Your task to perform on an android device: find photos in the google photos app Image 0: 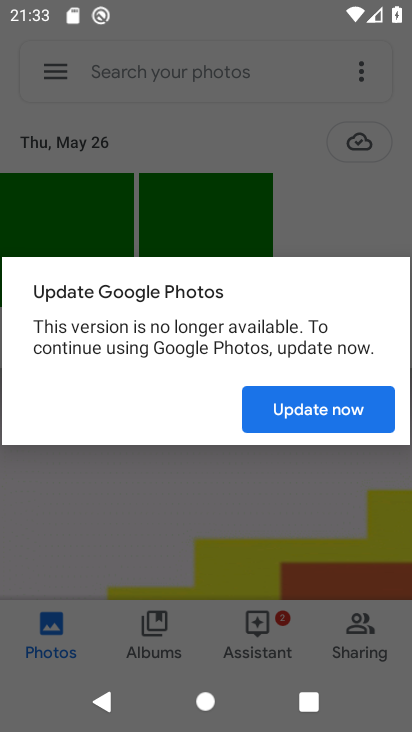
Step 0: press home button
Your task to perform on an android device: find photos in the google photos app Image 1: 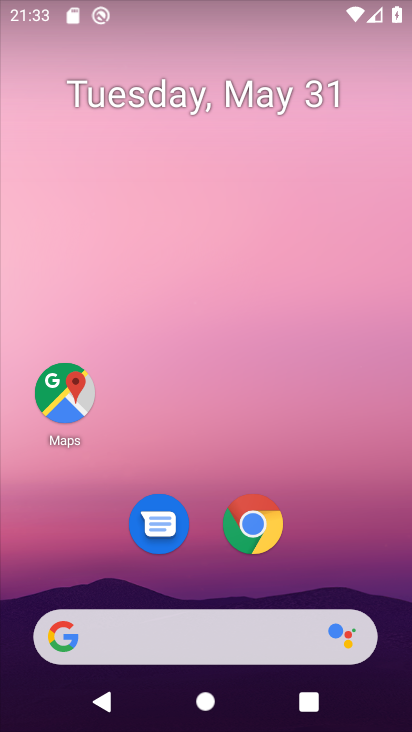
Step 1: drag from (349, 514) to (305, 4)
Your task to perform on an android device: find photos in the google photos app Image 2: 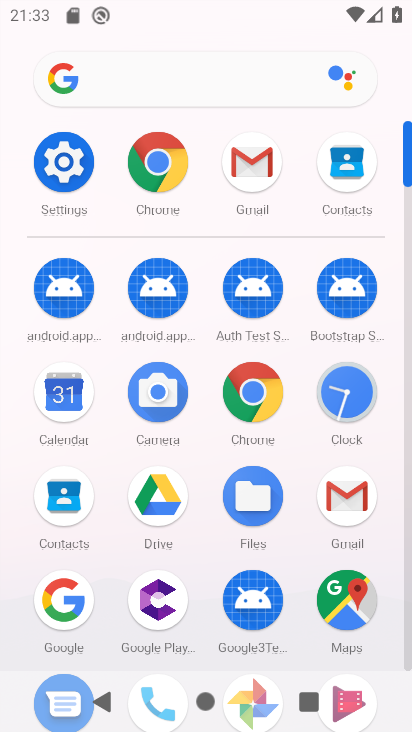
Step 2: drag from (293, 457) to (299, 136)
Your task to perform on an android device: find photos in the google photos app Image 3: 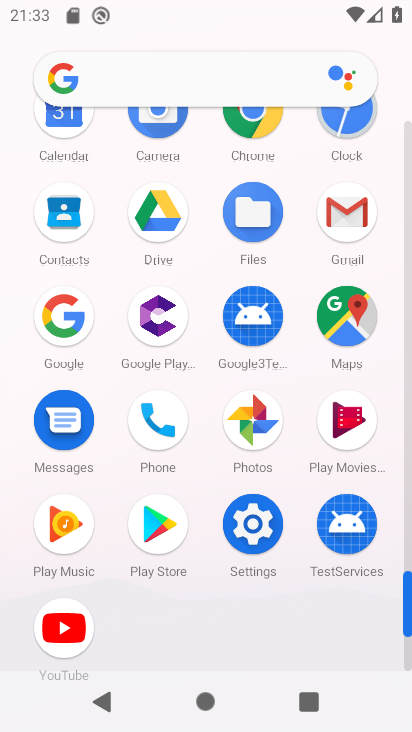
Step 3: click (254, 425)
Your task to perform on an android device: find photos in the google photos app Image 4: 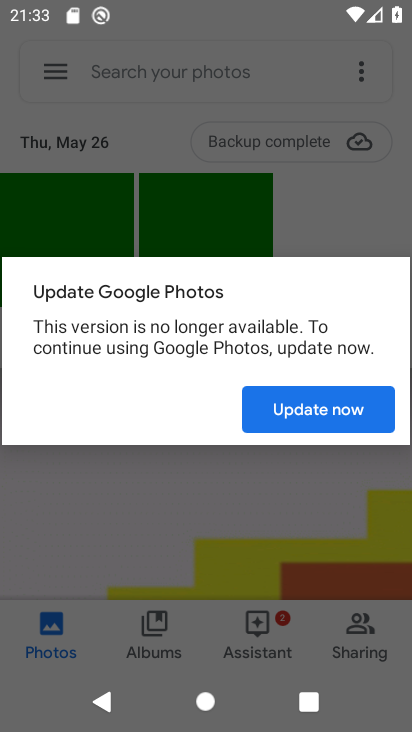
Step 4: click (299, 408)
Your task to perform on an android device: find photos in the google photos app Image 5: 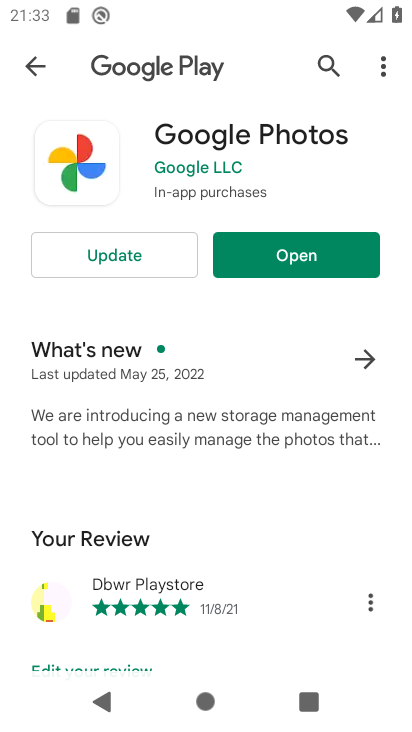
Step 5: click (324, 252)
Your task to perform on an android device: find photos in the google photos app Image 6: 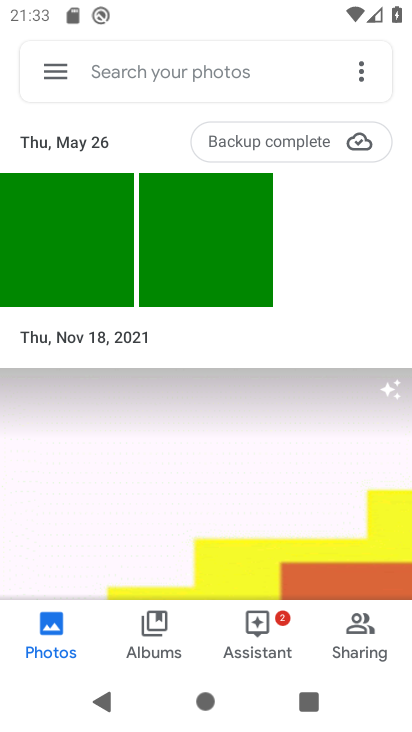
Step 6: click (59, 620)
Your task to perform on an android device: find photos in the google photos app Image 7: 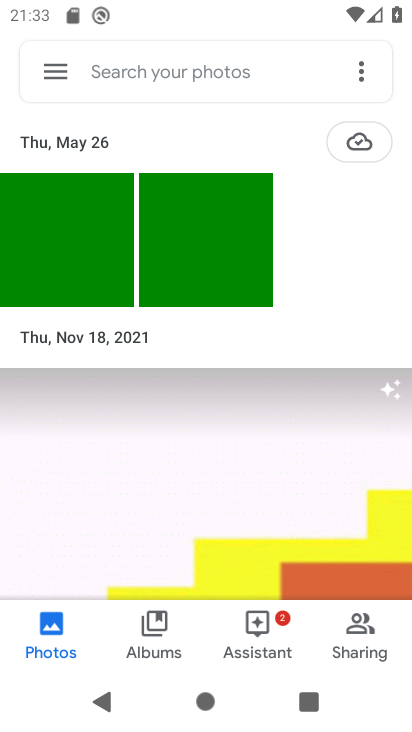
Step 7: task complete